Your task to perform on an android device: delete browsing data in the chrome app Image 0: 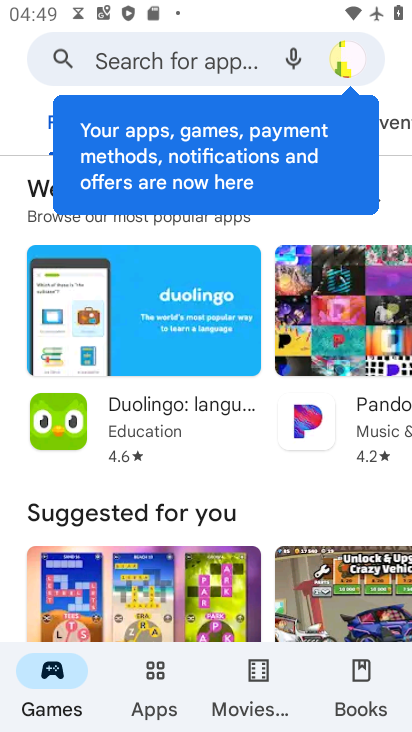
Step 0: press back button
Your task to perform on an android device: delete browsing data in the chrome app Image 1: 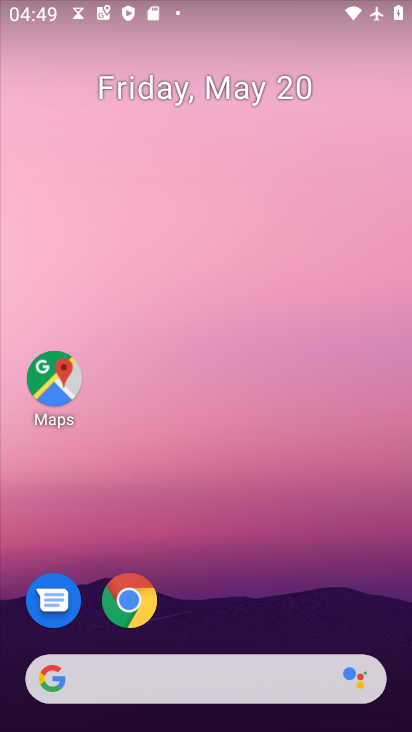
Step 1: drag from (250, 519) to (227, 120)
Your task to perform on an android device: delete browsing data in the chrome app Image 2: 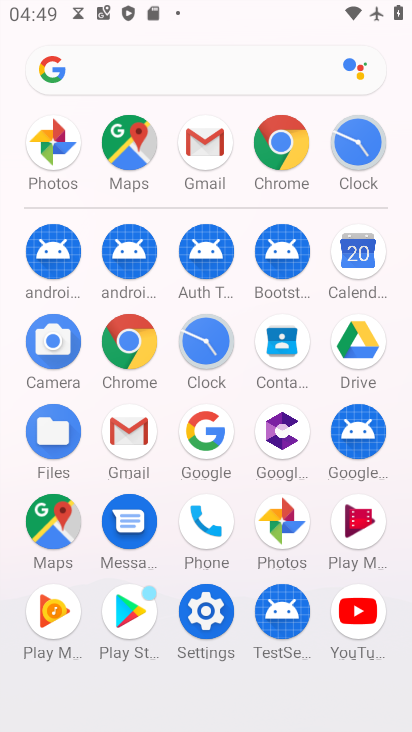
Step 2: drag from (12, 600) to (27, 380)
Your task to perform on an android device: delete browsing data in the chrome app Image 3: 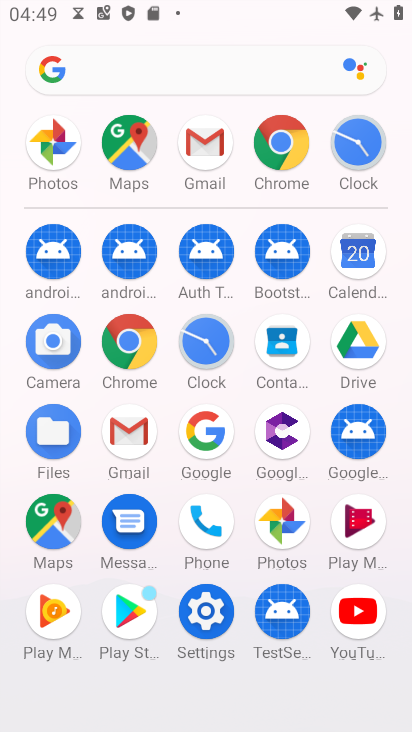
Step 3: click (130, 341)
Your task to perform on an android device: delete browsing data in the chrome app Image 4: 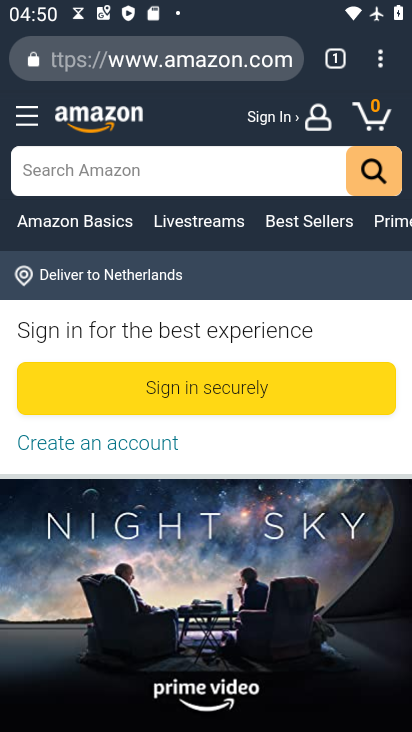
Step 4: drag from (377, 60) to (184, 328)
Your task to perform on an android device: delete browsing data in the chrome app Image 5: 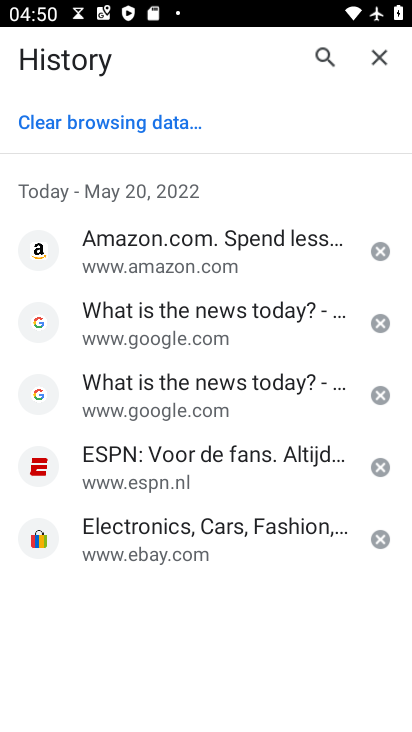
Step 5: click (138, 120)
Your task to perform on an android device: delete browsing data in the chrome app Image 6: 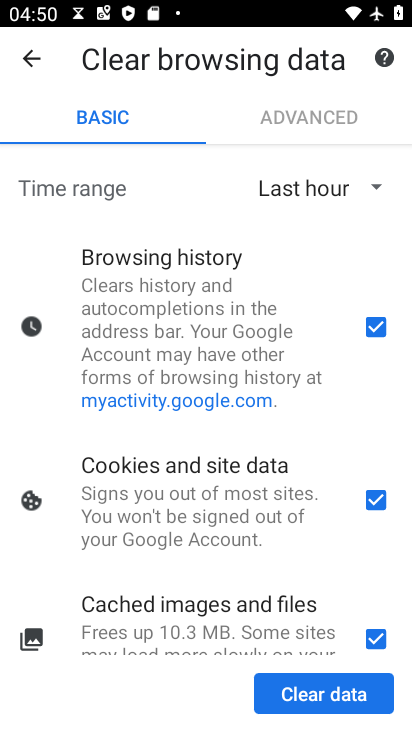
Step 6: click (370, 497)
Your task to perform on an android device: delete browsing data in the chrome app Image 7: 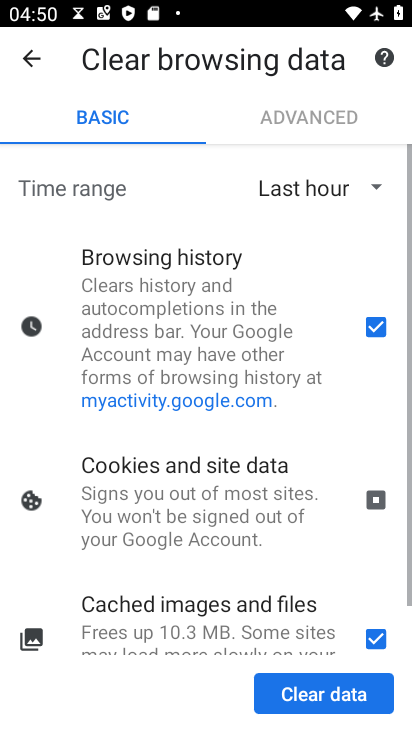
Step 7: click (374, 626)
Your task to perform on an android device: delete browsing data in the chrome app Image 8: 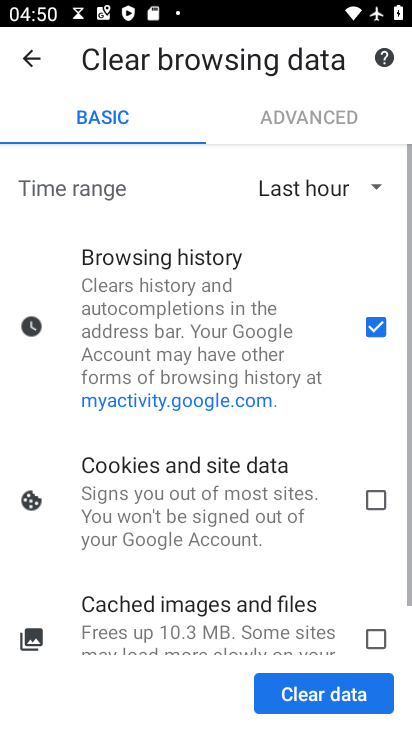
Step 8: click (309, 698)
Your task to perform on an android device: delete browsing data in the chrome app Image 9: 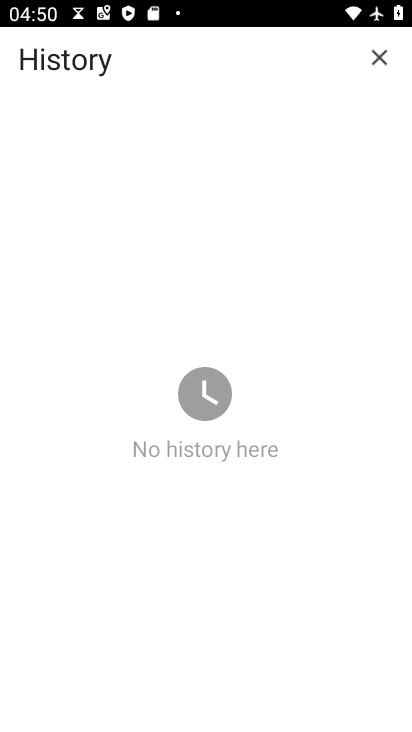
Step 9: task complete